Your task to perform on an android device: change your default location settings in chrome Image 0: 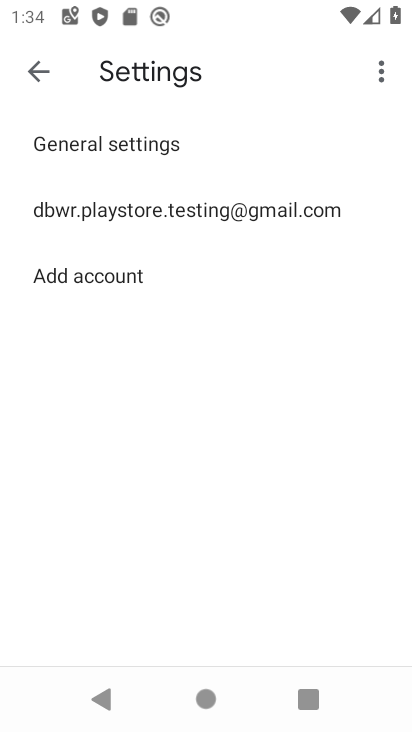
Step 0: press home button
Your task to perform on an android device: change your default location settings in chrome Image 1: 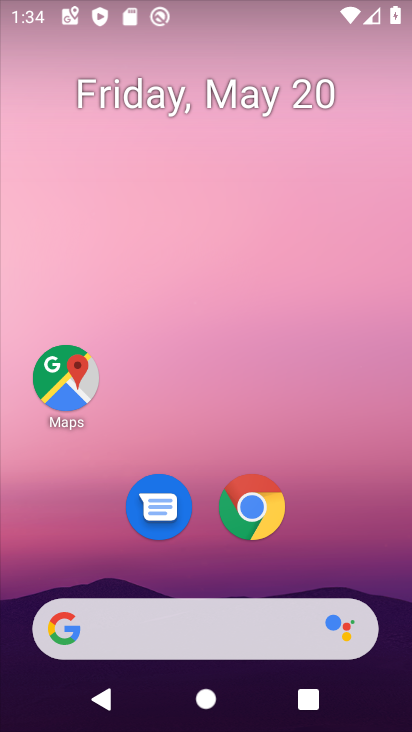
Step 1: drag from (188, 661) to (184, 151)
Your task to perform on an android device: change your default location settings in chrome Image 2: 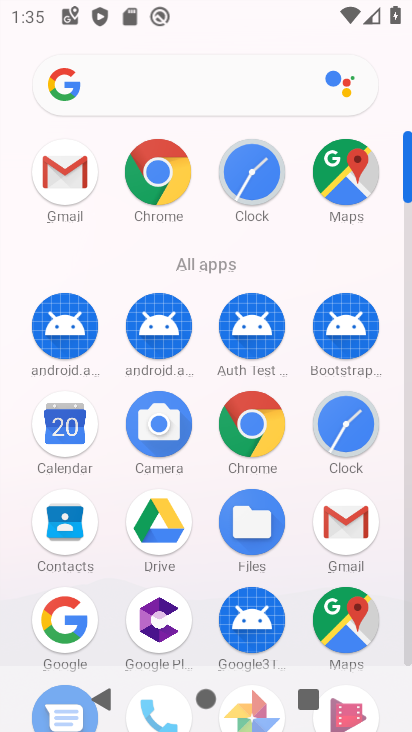
Step 2: click (249, 423)
Your task to perform on an android device: change your default location settings in chrome Image 3: 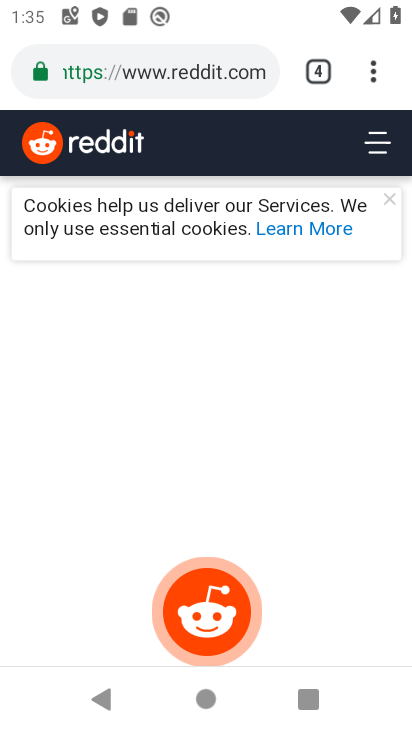
Step 3: click (374, 79)
Your task to perform on an android device: change your default location settings in chrome Image 4: 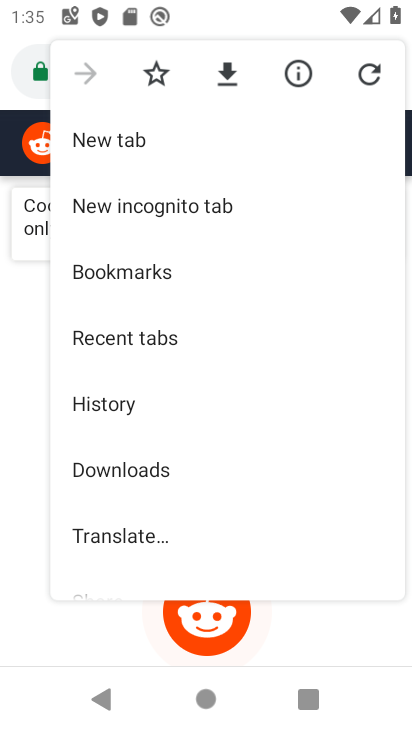
Step 4: drag from (107, 535) to (110, 129)
Your task to perform on an android device: change your default location settings in chrome Image 5: 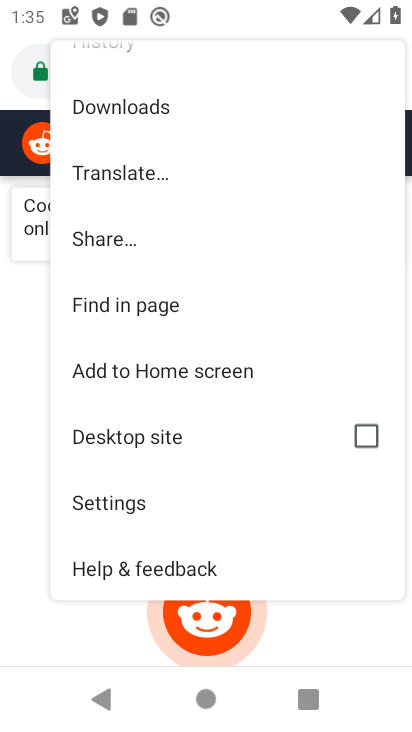
Step 5: click (114, 493)
Your task to perform on an android device: change your default location settings in chrome Image 6: 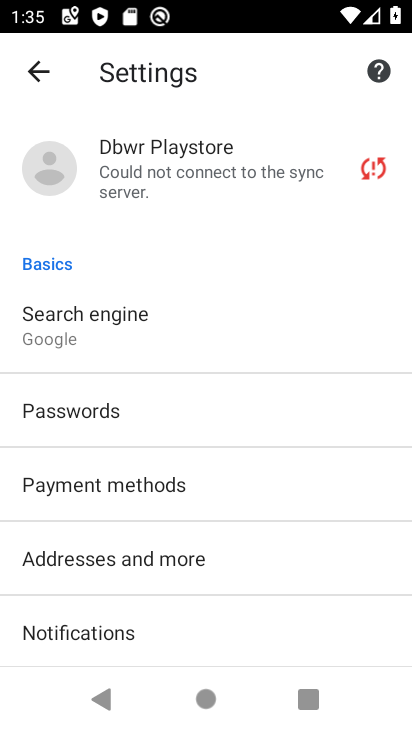
Step 6: drag from (131, 593) to (131, 239)
Your task to perform on an android device: change your default location settings in chrome Image 7: 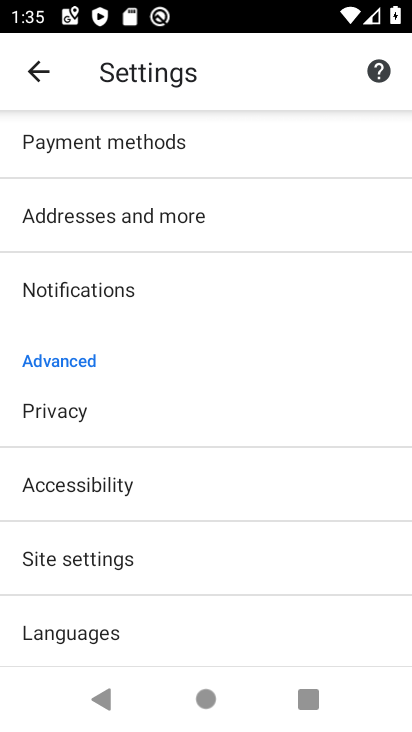
Step 7: click (108, 561)
Your task to perform on an android device: change your default location settings in chrome Image 8: 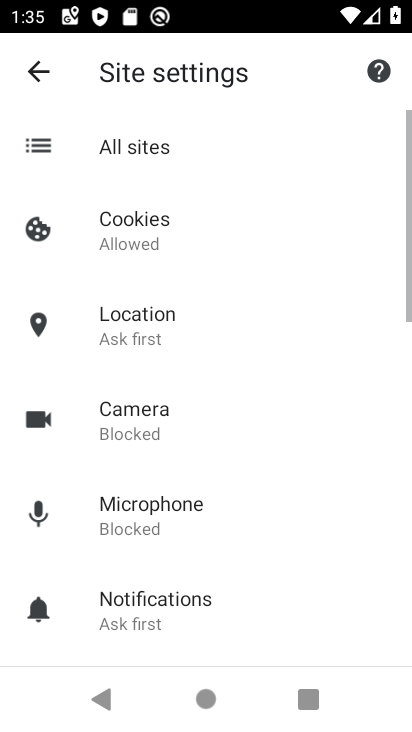
Step 8: click (137, 312)
Your task to perform on an android device: change your default location settings in chrome Image 9: 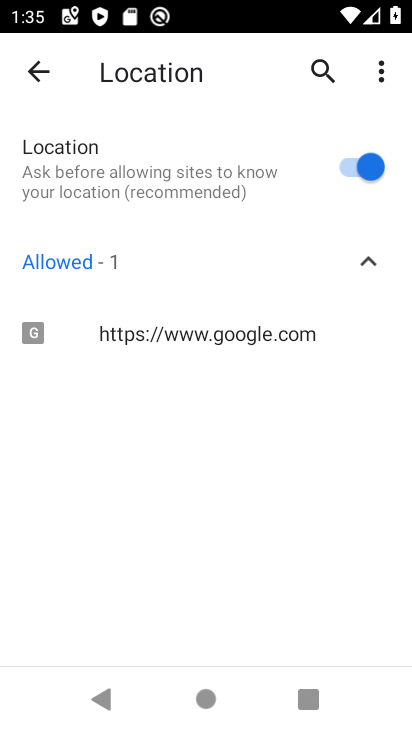
Step 9: click (352, 156)
Your task to perform on an android device: change your default location settings in chrome Image 10: 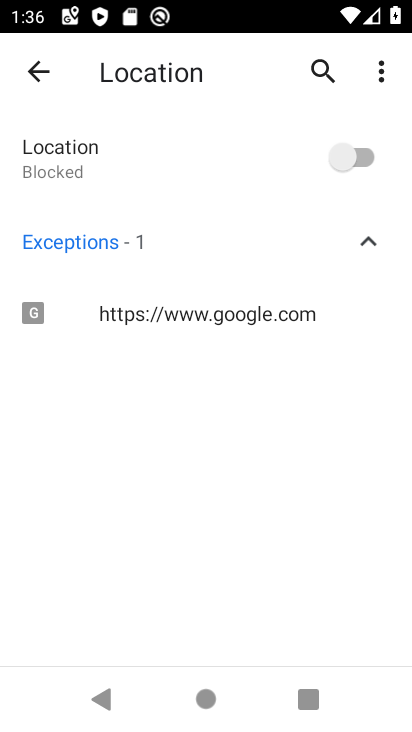
Step 10: task complete